Your task to perform on an android device: Go to calendar. Show me events next week Image 0: 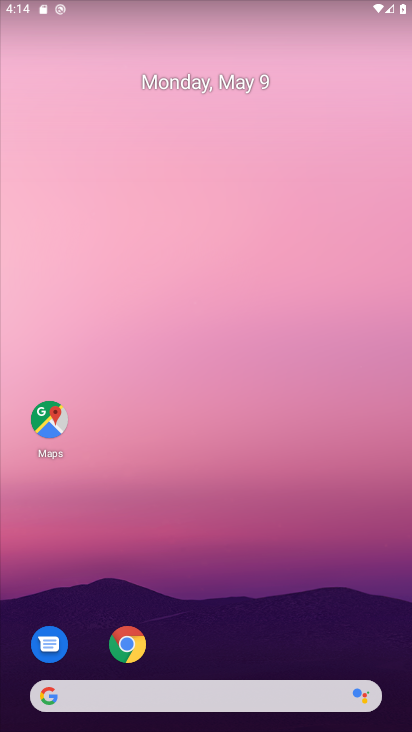
Step 0: drag from (230, 628) to (190, 59)
Your task to perform on an android device: Go to calendar. Show me events next week Image 1: 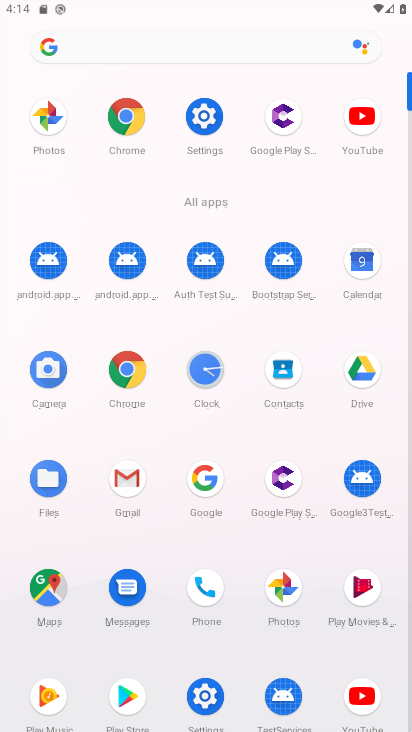
Step 1: click (363, 265)
Your task to perform on an android device: Go to calendar. Show me events next week Image 2: 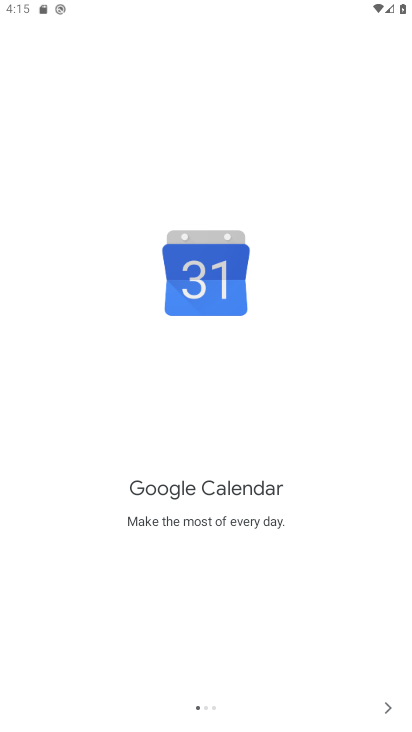
Step 2: click (386, 701)
Your task to perform on an android device: Go to calendar. Show me events next week Image 3: 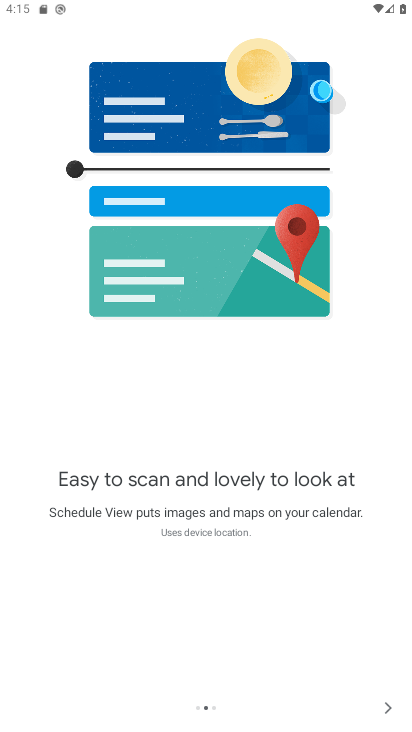
Step 3: click (386, 701)
Your task to perform on an android device: Go to calendar. Show me events next week Image 4: 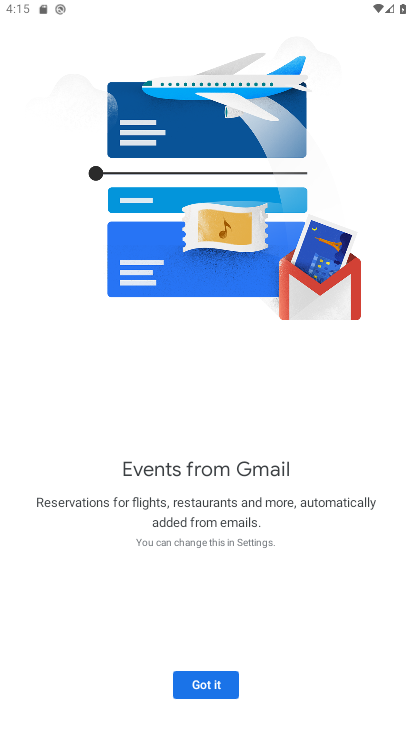
Step 4: click (217, 682)
Your task to perform on an android device: Go to calendar. Show me events next week Image 5: 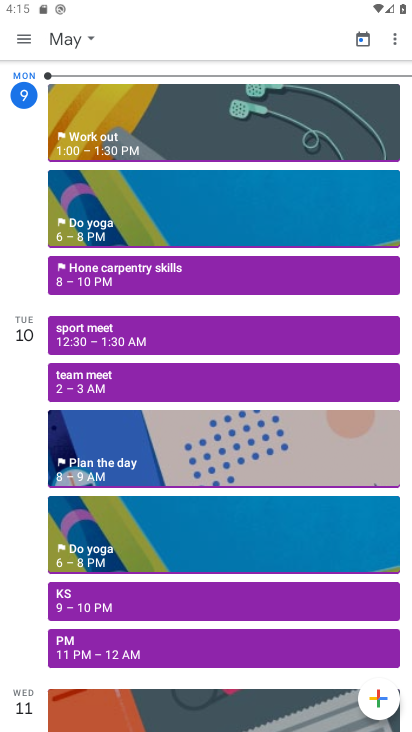
Step 5: click (87, 36)
Your task to perform on an android device: Go to calendar. Show me events next week Image 6: 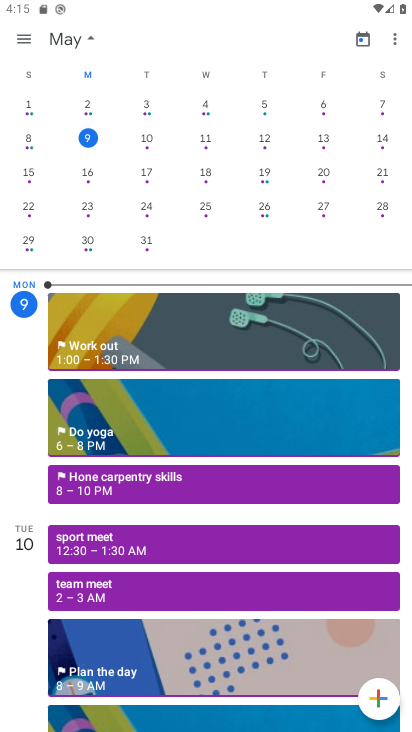
Step 6: click (81, 174)
Your task to perform on an android device: Go to calendar. Show me events next week Image 7: 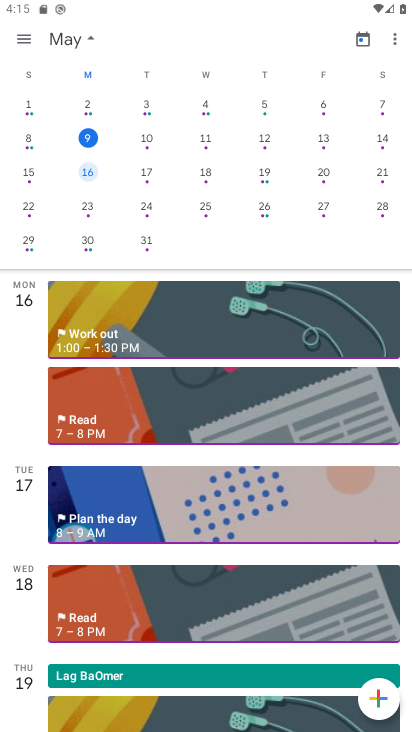
Step 7: click (130, 319)
Your task to perform on an android device: Go to calendar. Show me events next week Image 8: 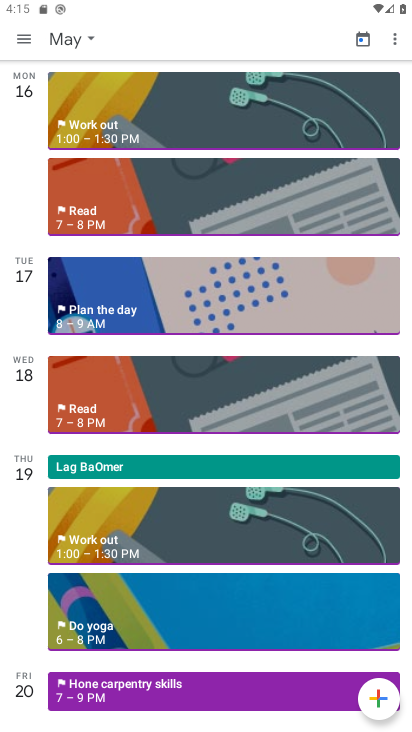
Step 8: click (172, 176)
Your task to perform on an android device: Go to calendar. Show me events next week Image 9: 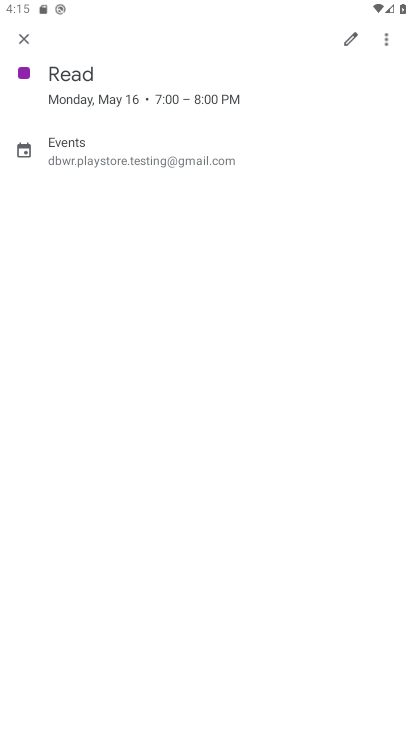
Step 9: task complete